Your task to perform on an android device: Play the last video I watched on Youtube Image 0: 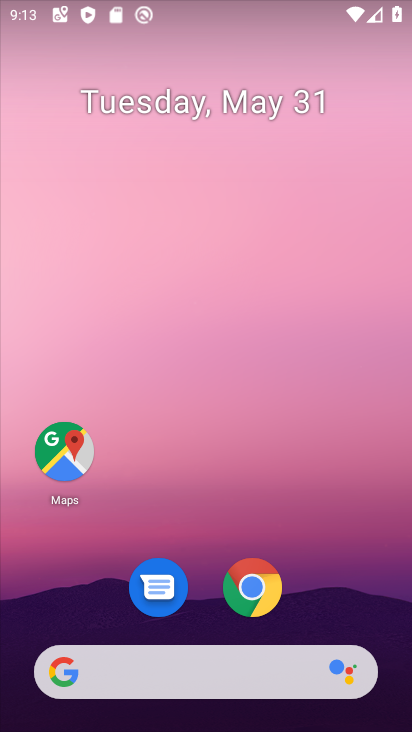
Step 0: drag from (249, 476) to (246, 3)
Your task to perform on an android device: Play the last video I watched on Youtube Image 1: 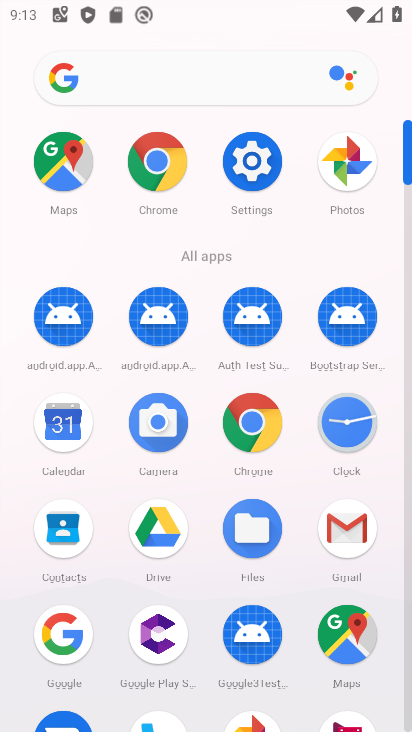
Step 1: drag from (197, 515) to (235, 107)
Your task to perform on an android device: Play the last video I watched on Youtube Image 2: 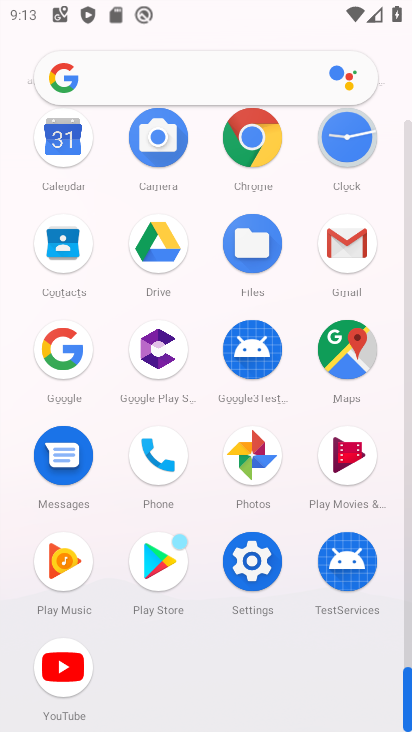
Step 2: click (58, 675)
Your task to perform on an android device: Play the last video I watched on Youtube Image 3: 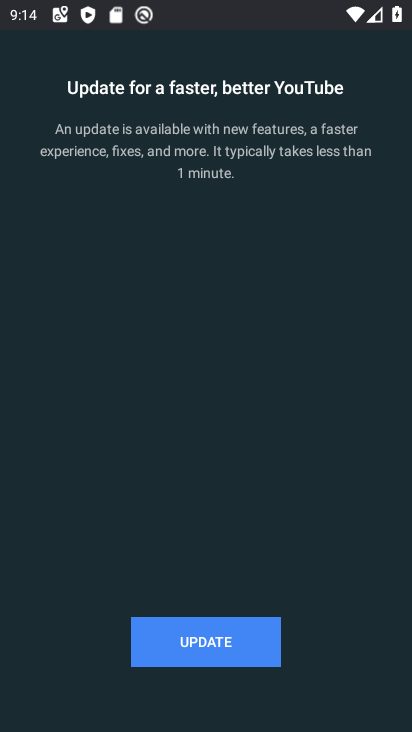
Step 3: click (199, 647)
Your task to perform on an android device: Play the last video I watched on Youtube Image 4: 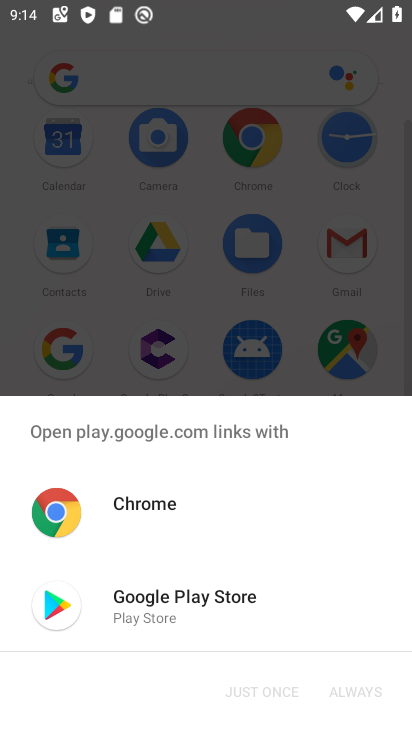
Step 4: click (151, 599)
Your task to perform on an android device: Play the last video I watched on Youtube Image 5: 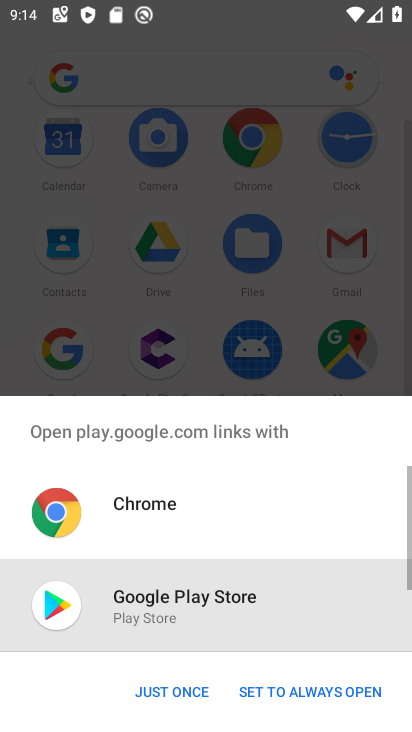
Step 5: click (184, 685)
Your task to perform on an android device: Play the last video I watched on Youtube Image 6: 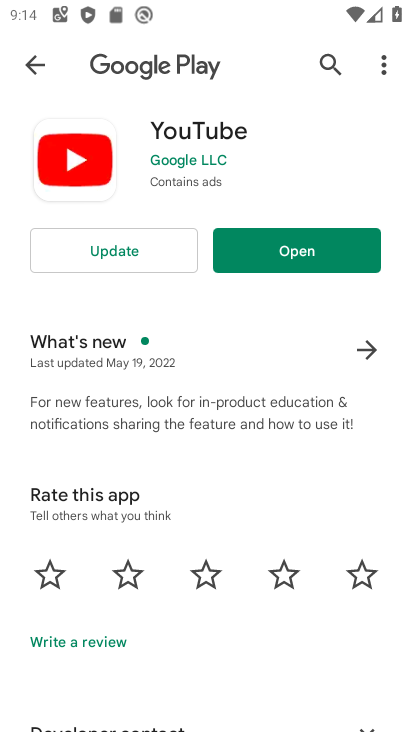
Step 6: click (117, 260)
Your task to perform on an android device: Play the last video I watched on Youtube Image 7: 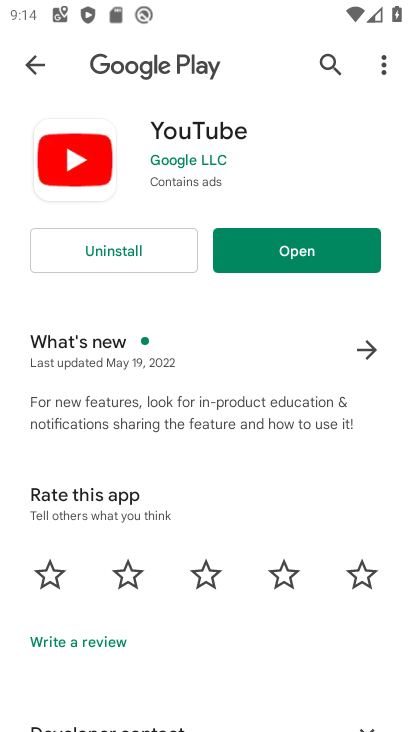
Step 7: click (119, 246)
Your task to perform on an android device: Play the last video I watched on Youtube Image 8: 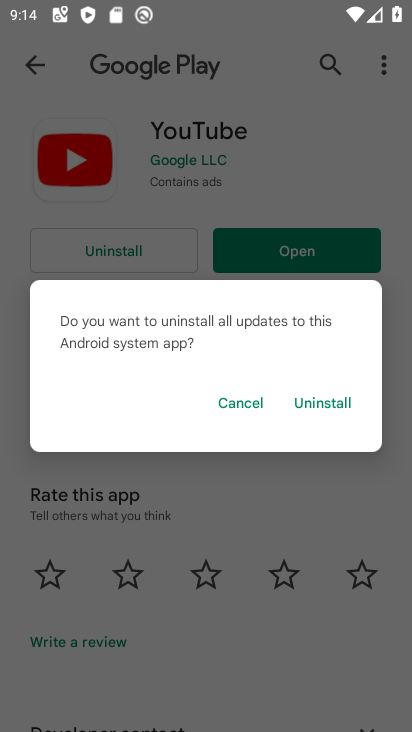
Step 8: click (295, 499)
Your task to perform on an android device: Play the last video I watched on Youtube Image 9: 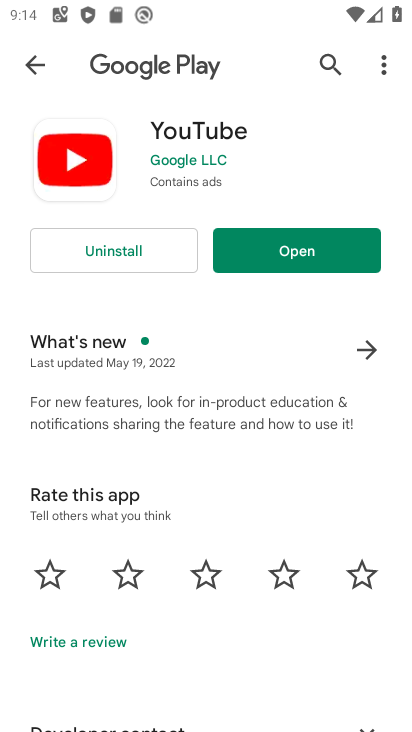
Step 9: click (290, 239)
Your task to perform on an android device: Play the last video I watched on Youtube Image 10: 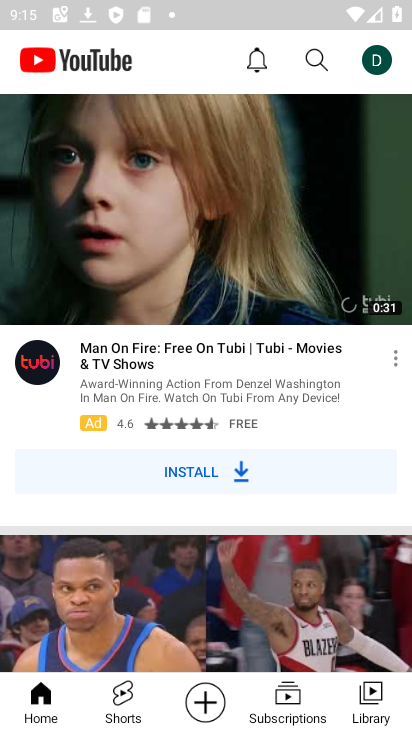
Step 10: click (374, 695)
Your task to perform on an android device: Play the last video I watched on Youtube Image 11: 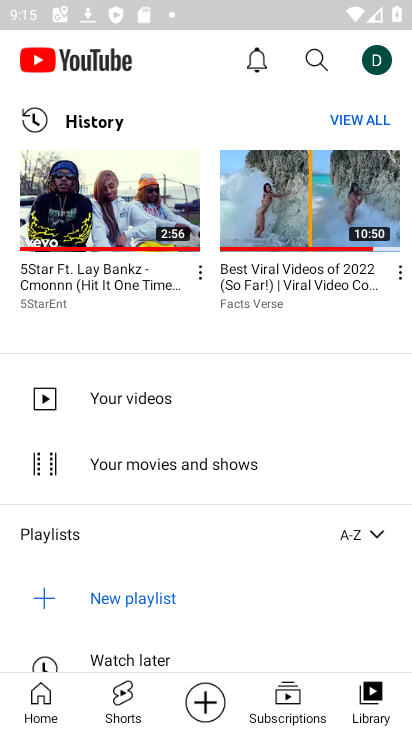
Step 11: click (79, 183)
Your task to perform on an android device: Play the last video I watched on Youtube Image 12: 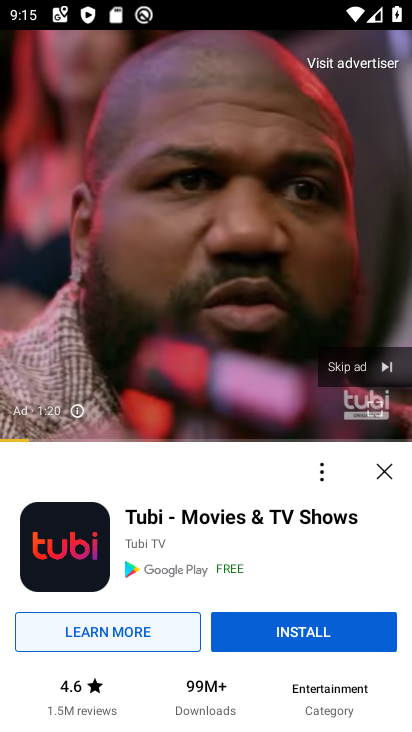
Step 12: task complete